Your task to perform on an android device: Go to Wikipedia Image 0: 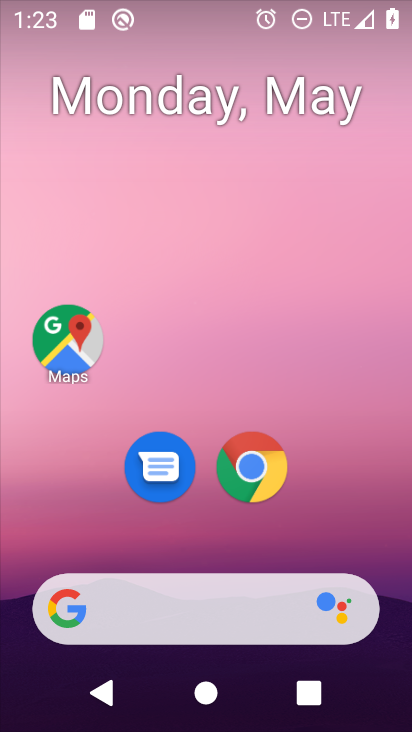
Step 0: click (268, 482)
Your task to perform on an android device: Go to Wikipedia Image 1: 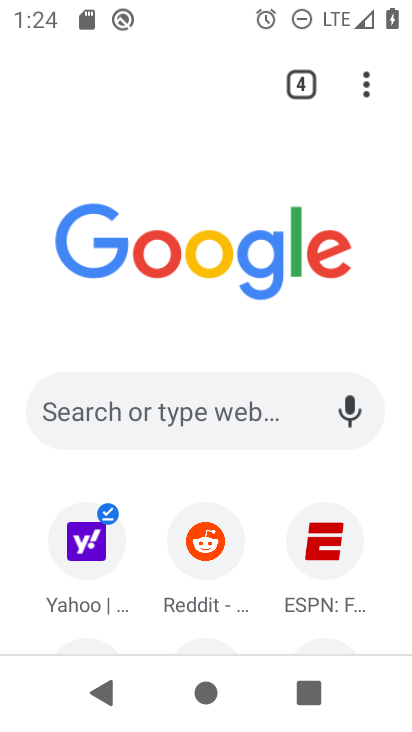
Step 1: click (80, 415)
Your task to perform on an android device: Go to Wikipedia Image 2: 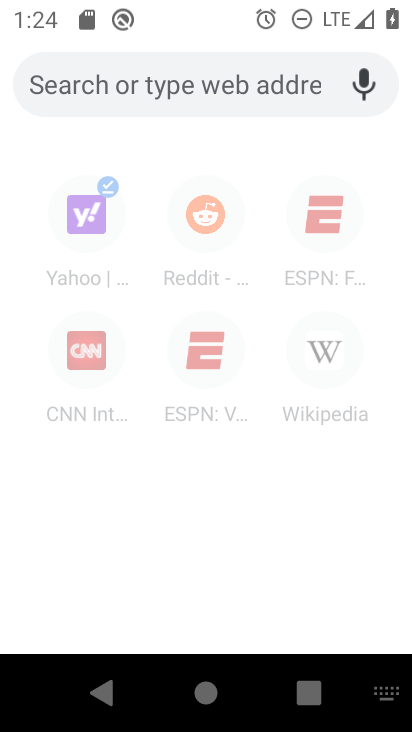
Step 2: click (322, 392)
Your task to perform on an android device: Go to Wikipedia Image 3: 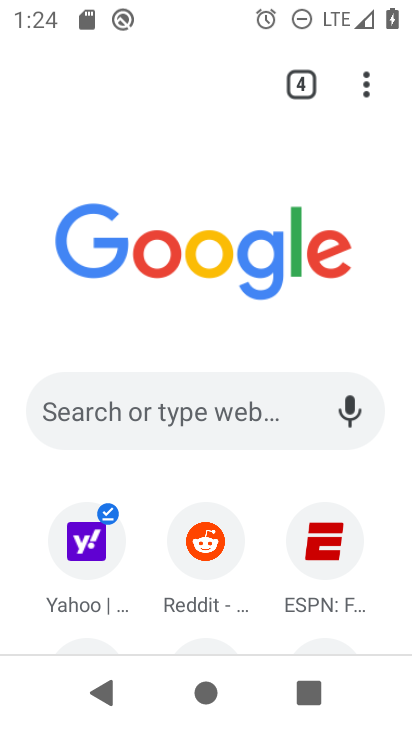
Step 3: drag from (370, 624) to (361, 230)
Your task to perform on an android device: Go to Wikipedia Image 4: 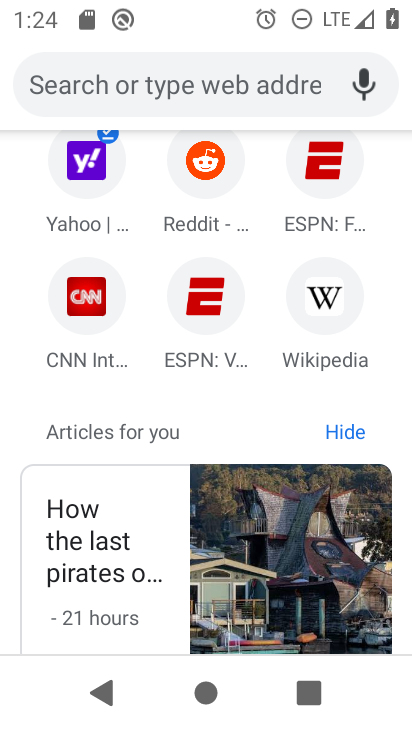
Step 4: click (318, 327)
Your task to perform on an android device: Go to Wikipedia Image 5: 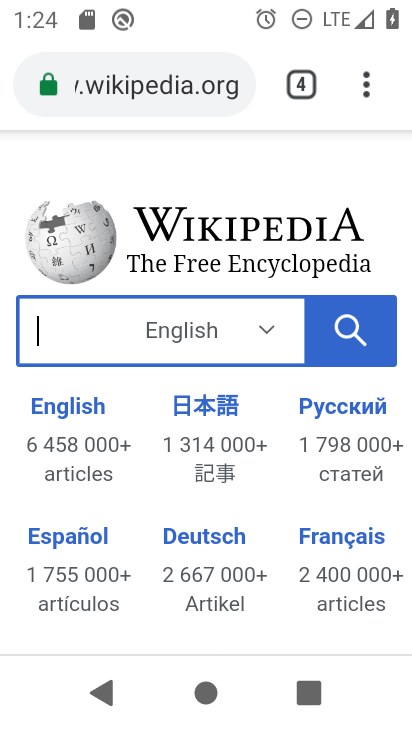
Step 5: task complete